Your task to perform on an android device: toggle improve location accuracy Image 0: 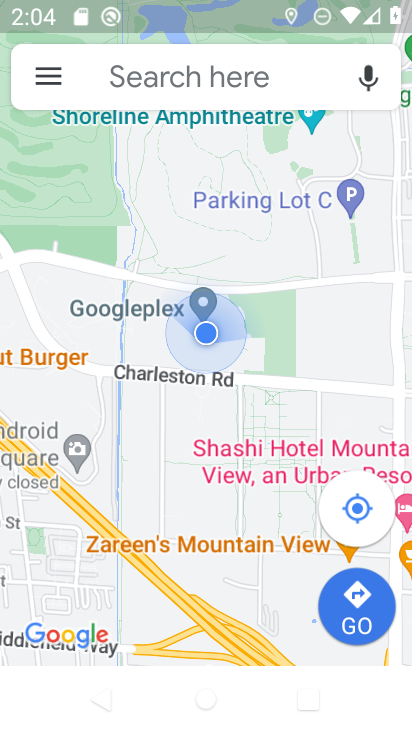
Step 0: press home button
Your task to perform on an android device: toggle improve location accuracy Image 1: 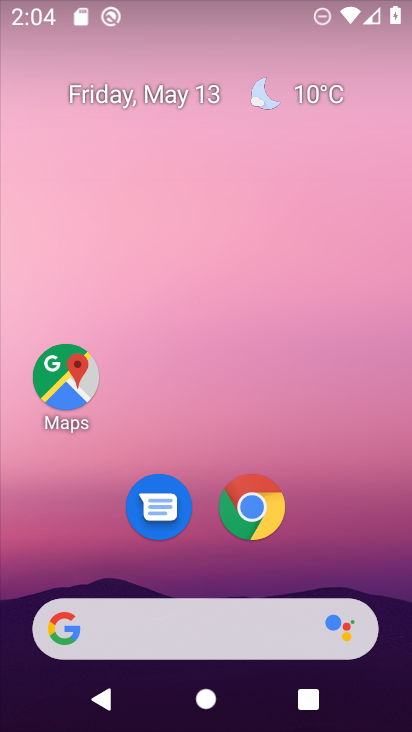
Step 1: drag from (365, 499) to (319, 158)
Your task to perform on an android device: toggle improve location accuracy Image 2: 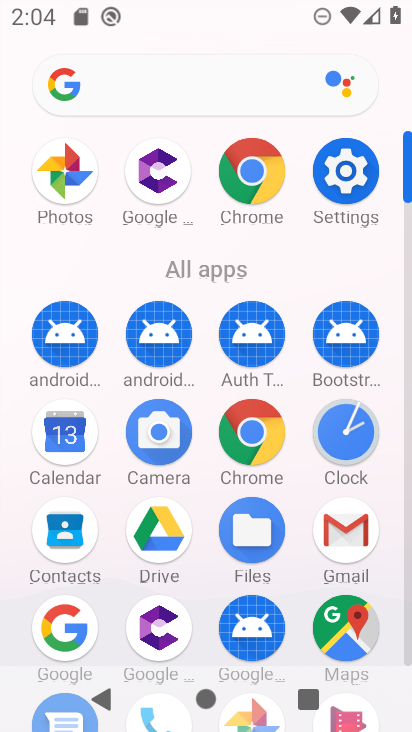
Step 2: click (341, 179)
Your task to perform on an android device: toggle improve location accuracy Image 3: 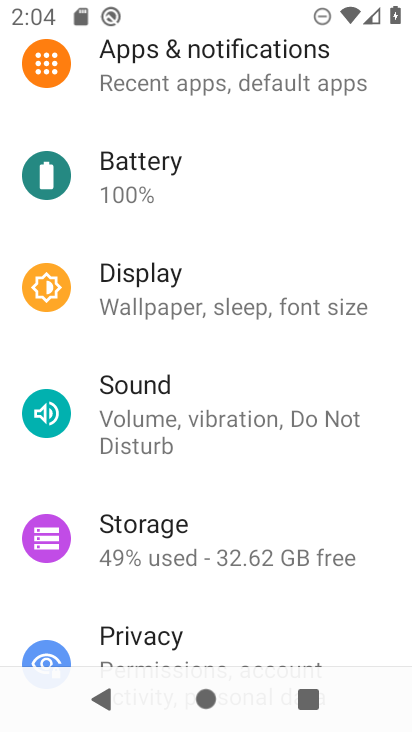
Step 3: drag from (219, 471) to (248, 125)
Your task to perform on an android device: toggle improve location accuracy Image 4: 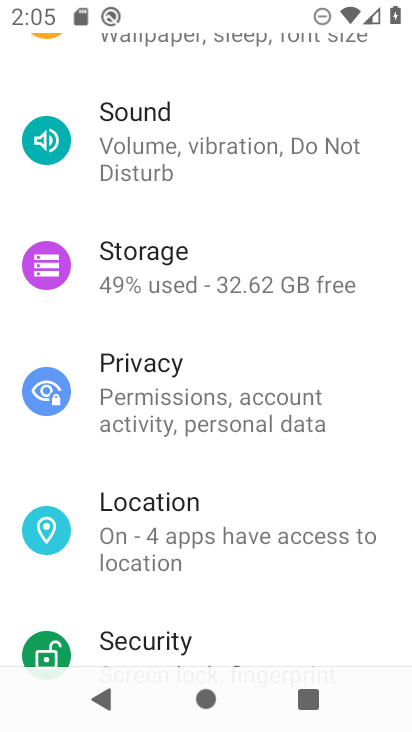
Step 4: click (183, 528)
Your task to perform on an android device: toggle improve location accuracy Image 5: 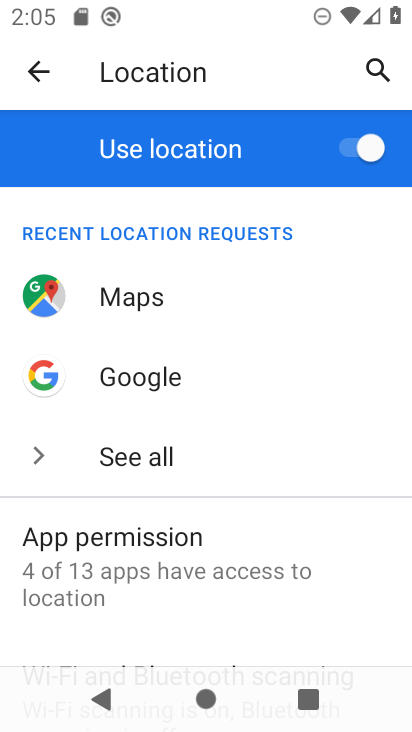
Step 5: drag from (217, 581) to (254, 261)
Your task to perform on an android device: toggle improve location accuracy Image 6: 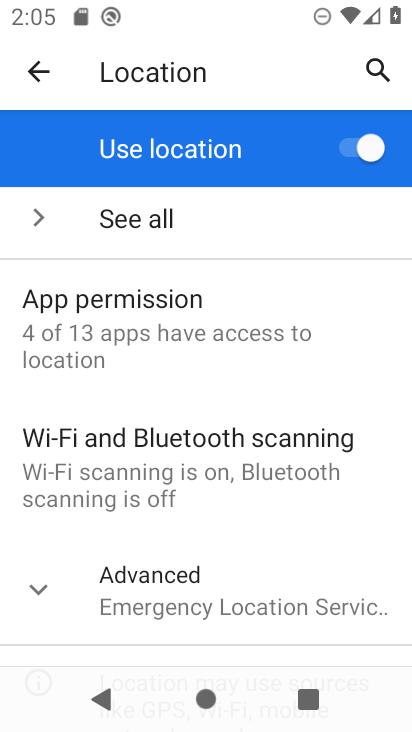
Step 6: drag from (254, 601) to (227, 254)
Your task to perform on an android device: toggle improve location accuracy Image 7: 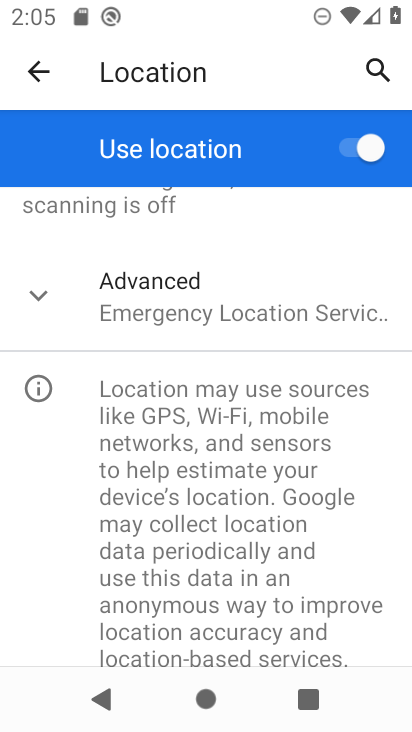
Step 7: click (184, 296)
Your task to perform on an android device: toggle improve location accuracy Image 8: 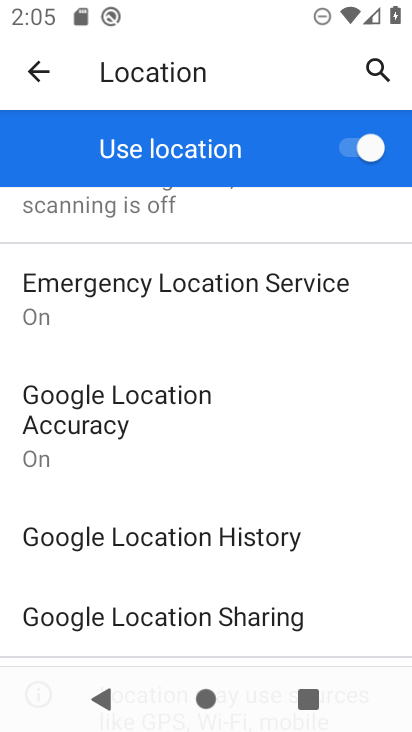
Step 8: drag from (270, 571) to (243, 279)
Your task to perform on an android device: toggle improve location accuracy Image 9: 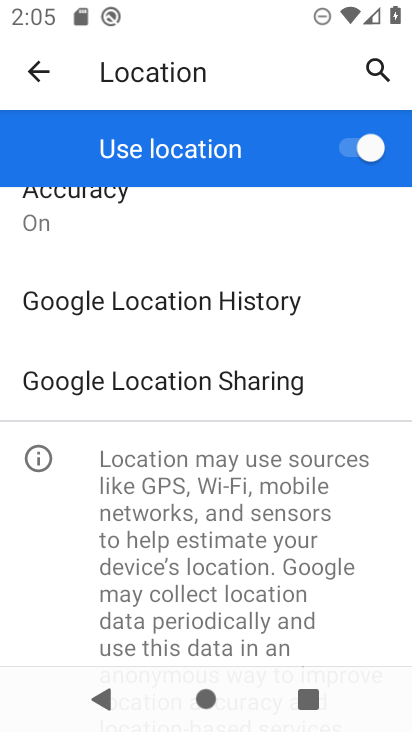
Step 9: drag from (282, 569) to (306, 266)
Your task to perform on an android device: toggle improve location accuracy Image 10: 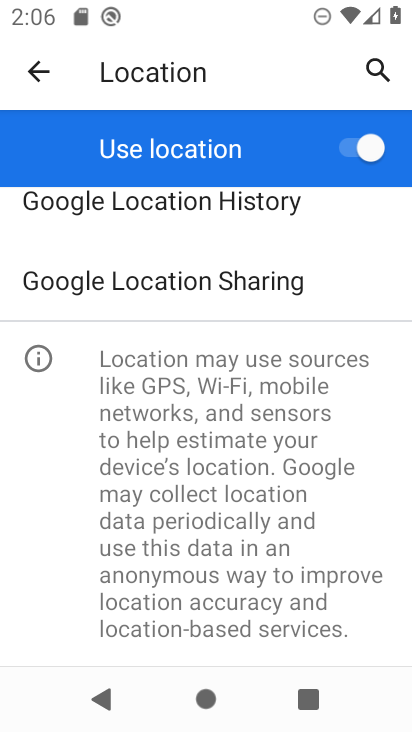
Step 10: drag from (271, 611) to (281, 270)
Your task to perform on an android device: toggle improve location accuracy Image 11: 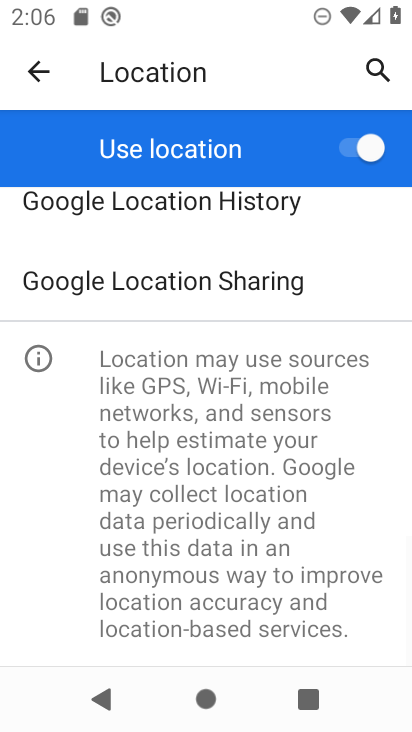
Step 11: drag from (281, 270) to (274, 575)
Your task to perform on an android device: toggle improve location accuracy Image 12: 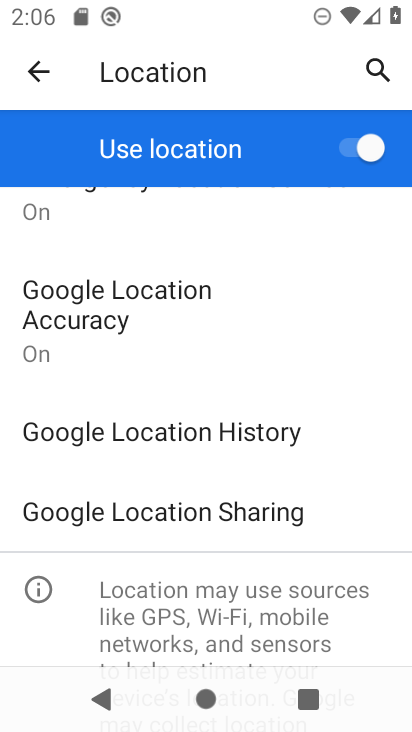
Step 12: click (129, 319)
Your task to perform on an android device: toggle improve location accuracy Image 13: 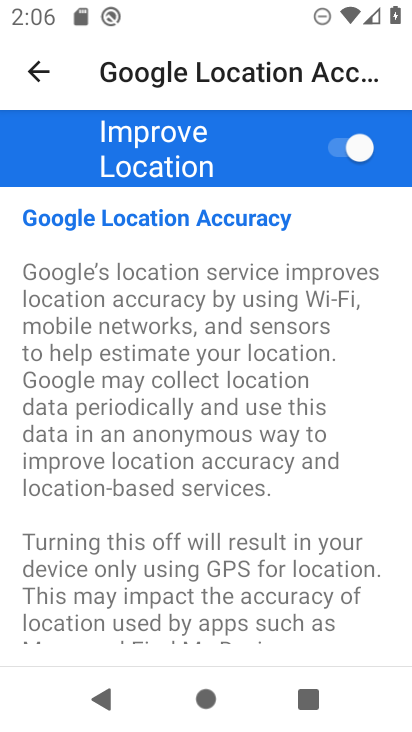
Step 13: click (335, 159)
Your task to perform on an android device: toggle improve location accuracy Image 14: 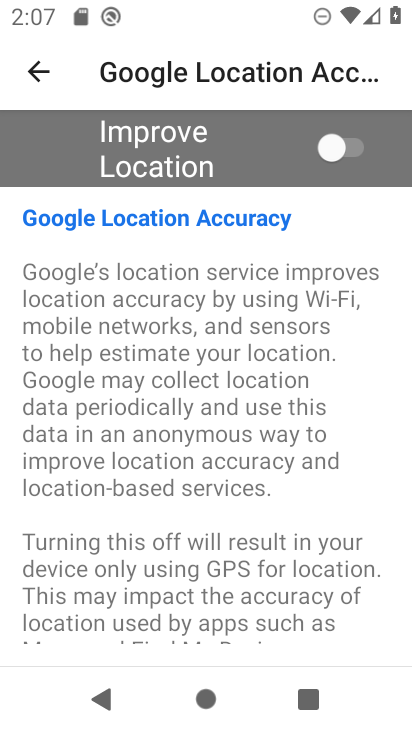
Step 14: task complete